Your task to perform on an android device: turn off priority inbox in the gmail app Image 0: 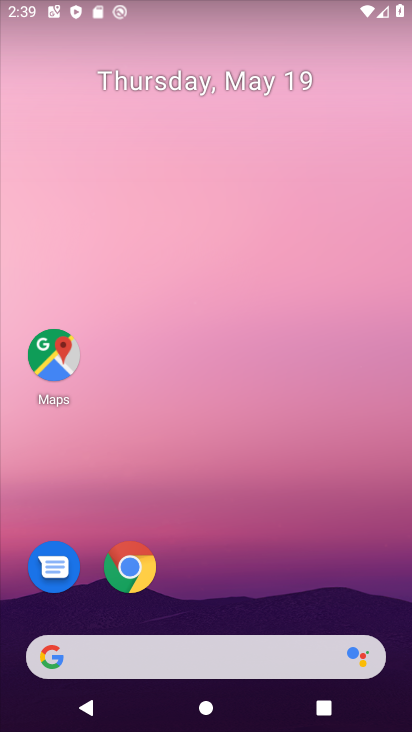
Step 0: drag from (243, 722) to (243, 153)
Your task to perform on an android device: turn off priority inbox in the gmail app Image 1: 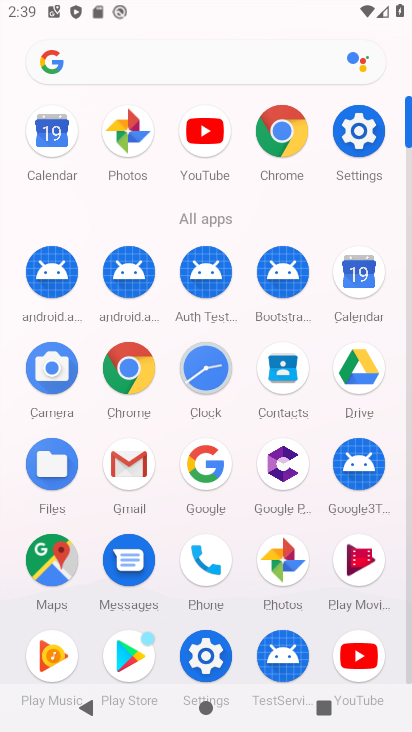
Step 1: click (122, 463)
Your task to perform on an android device: turn off priority inbox in the gmail app Image 2: 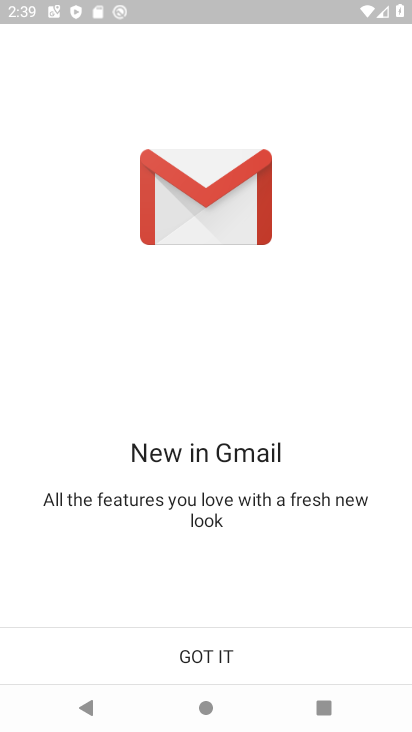
Step 2: click (214, 653)
Your task to perform on an android device: turn off priority inbox in the gmail app Image 3: 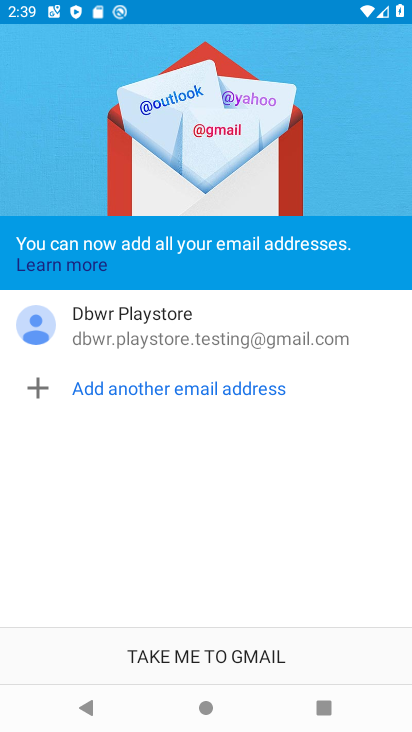
Step 3: click (214, 652)
Your task to perform on an android device: turn off priority inbox in the gmail app Image 4: 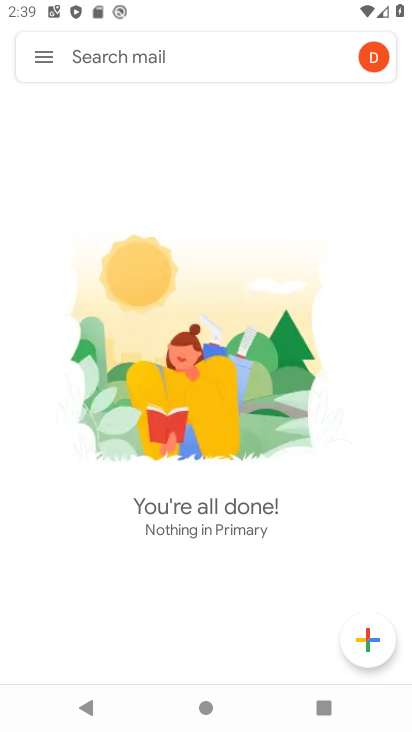
Step 4: click (39, 54)
Your task to perform on an android device: turn off priority inbox in the gmail app Image 5: 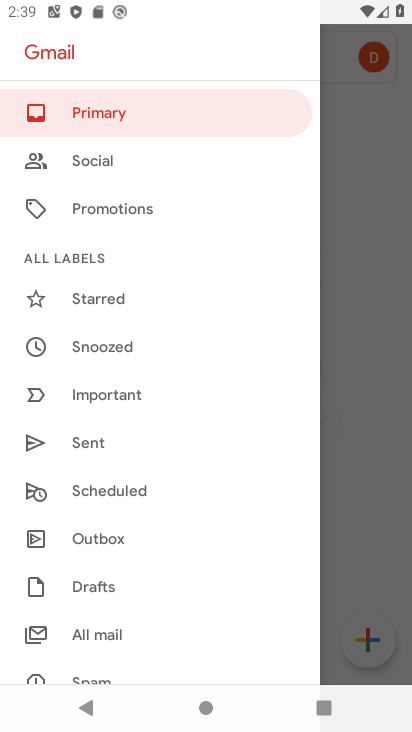
Step 5: drag from (128, 596) to (135, 171)
Your task to perform on an android device: turn off priority inbox in the gmail app Image 6: 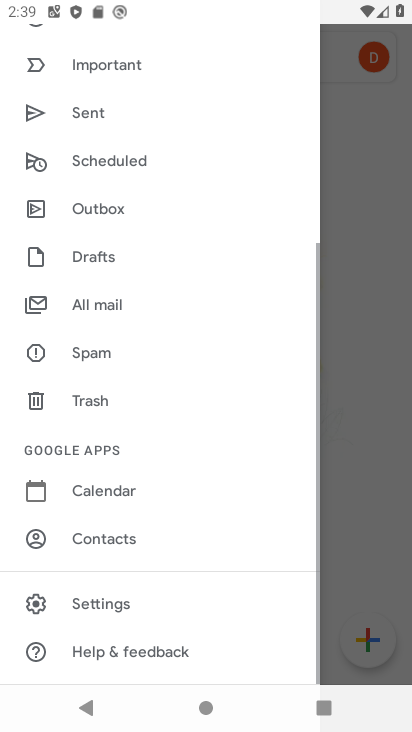
Step 6: click (120, 600)
Your task to perform on an android device: turn off priority inbox in the gmail app Image 7: 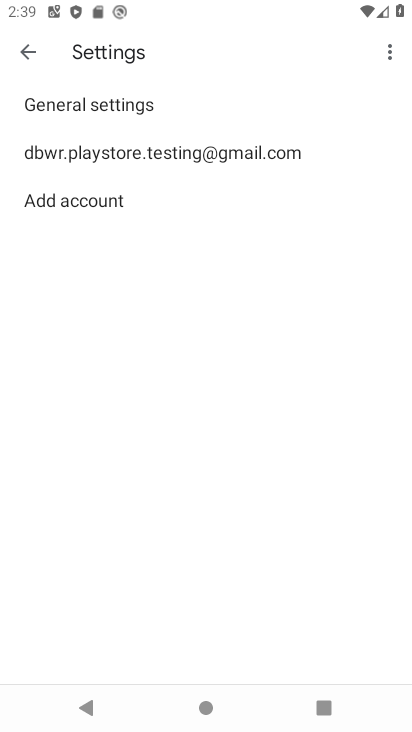
Step 7: click (196, 152)
Your task to perform on an android device: turn off priority inbox in the gmail app Image 8: 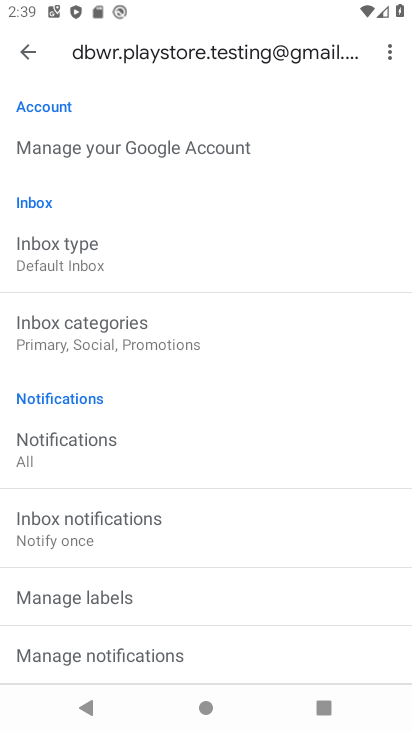
Step 8: task complete